Your task to perform on an android device: open app "Spotify: Music and Podcasts" (install if not already installed) Image 0: 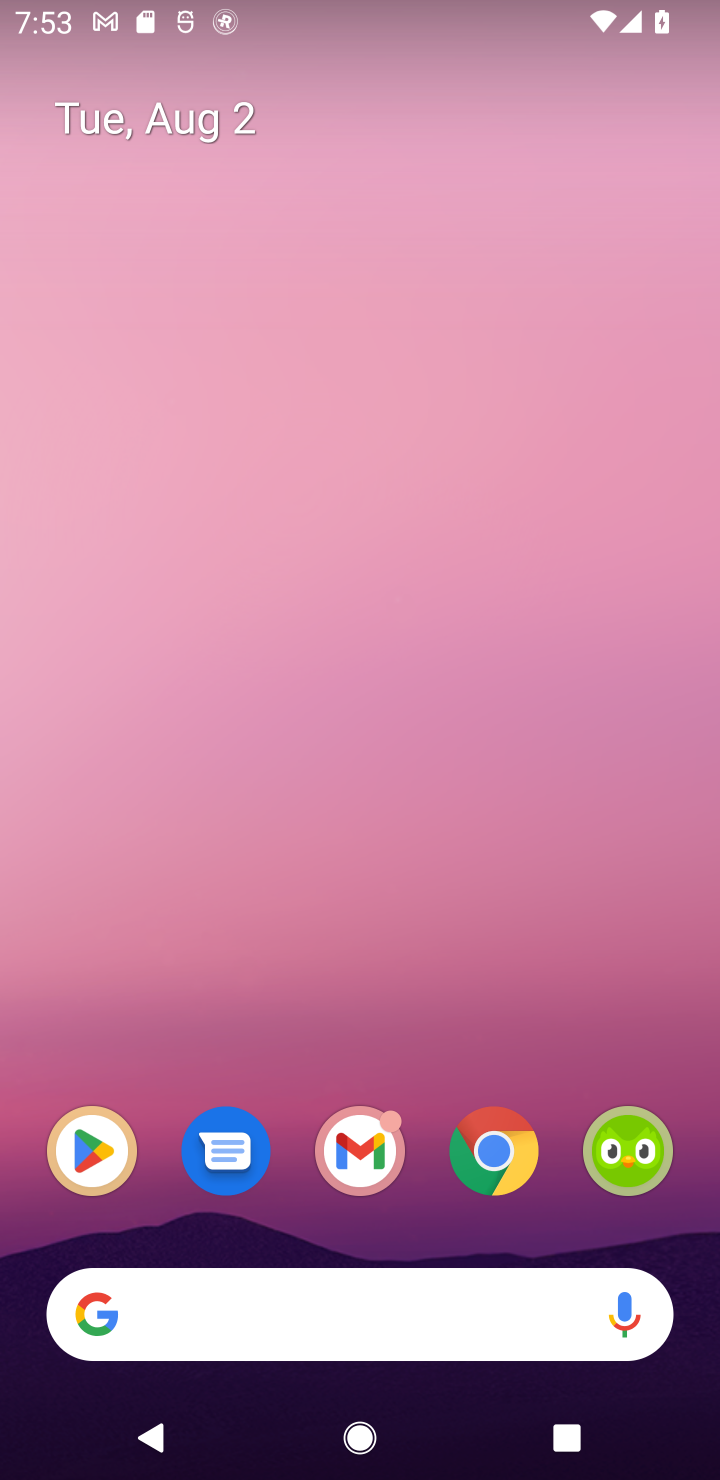
Step 0: click (119, 1165)
Your task to perform on an android device: open app "Spotify: Music and Podcasts" (install if not already installed) Image 1: 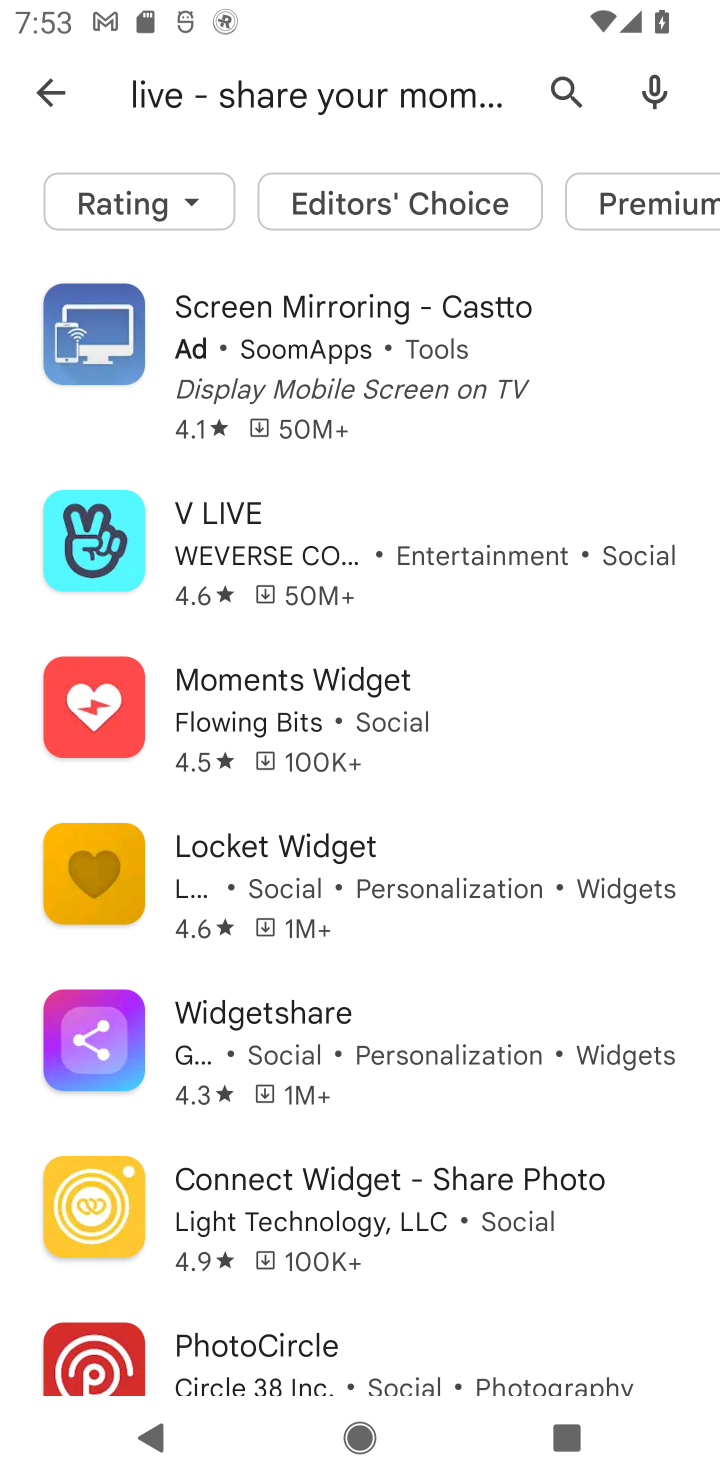
Step 1: click (567, 85)
Your task to perform on an android device: open app "Spotify: Music and Podcasts" (install if not already installed) Image 2: 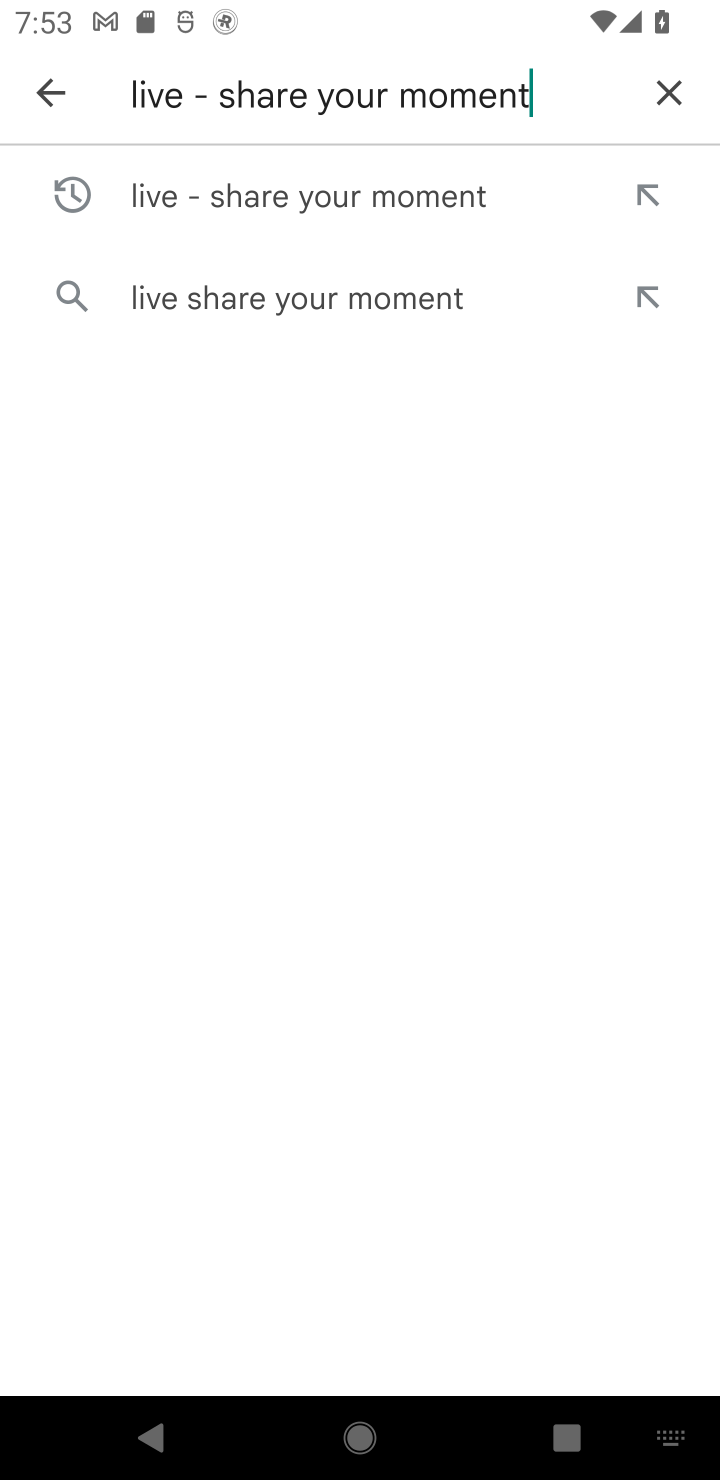
Step 2: click (649, 97)
Your task to perform on an android device: open app "Spotify: Music and Podcasts" (install if not already installed) Image 3: 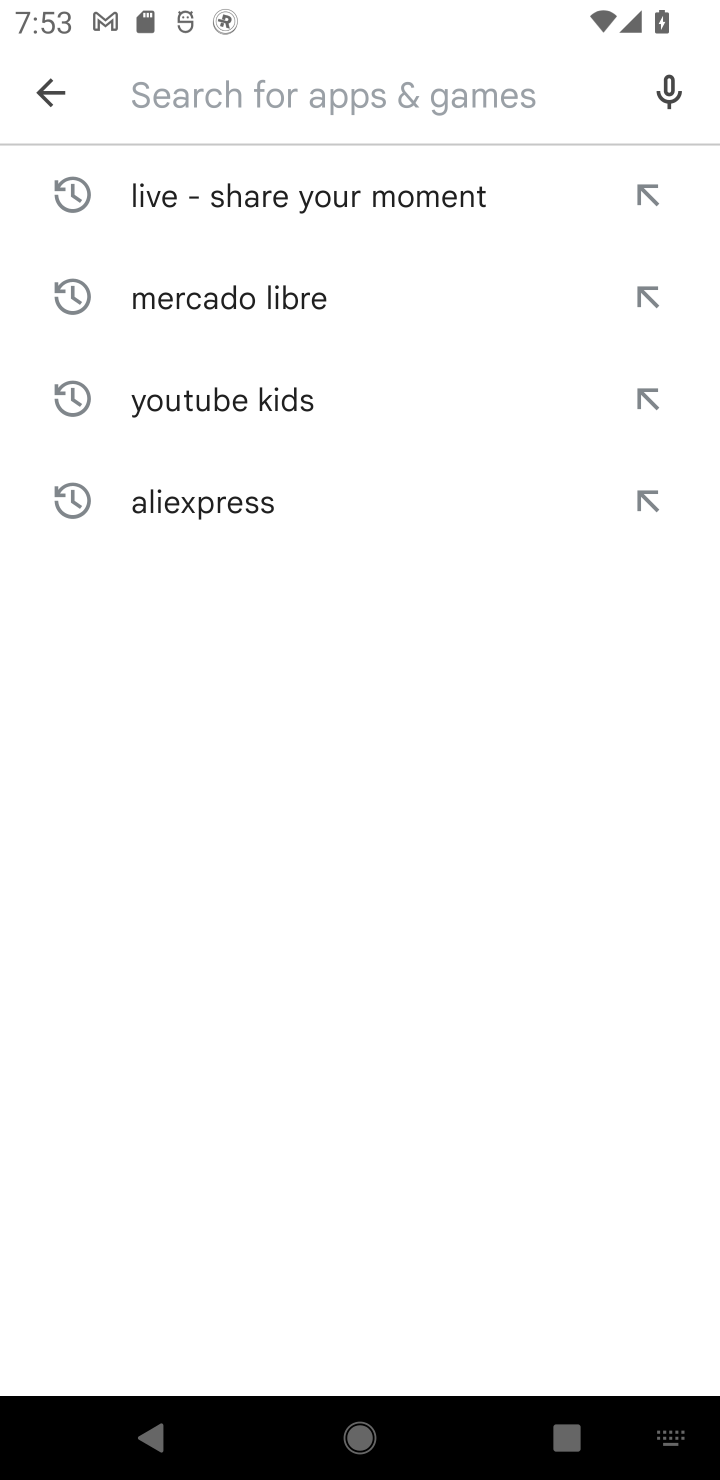
Step 3: type "Spotify: Music and Podcasts"
Your task to perform on an android device: open app "Spotify: Music and Podcasts" (install if not already installed) Image 4: 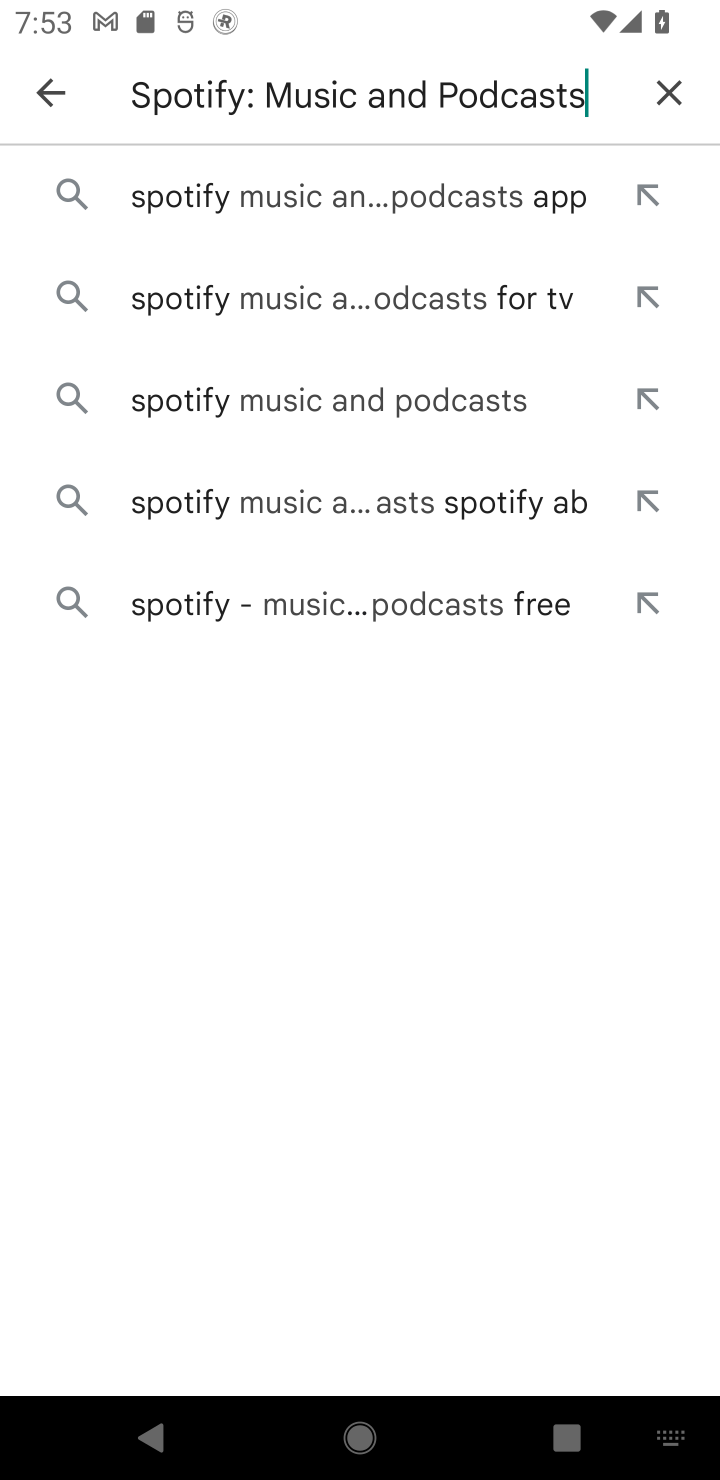
Step 4: click (266, 194)
Your task to perform on an android device: open app "Spotify: Music and Podcasts" (install if not already installed) Image 5: 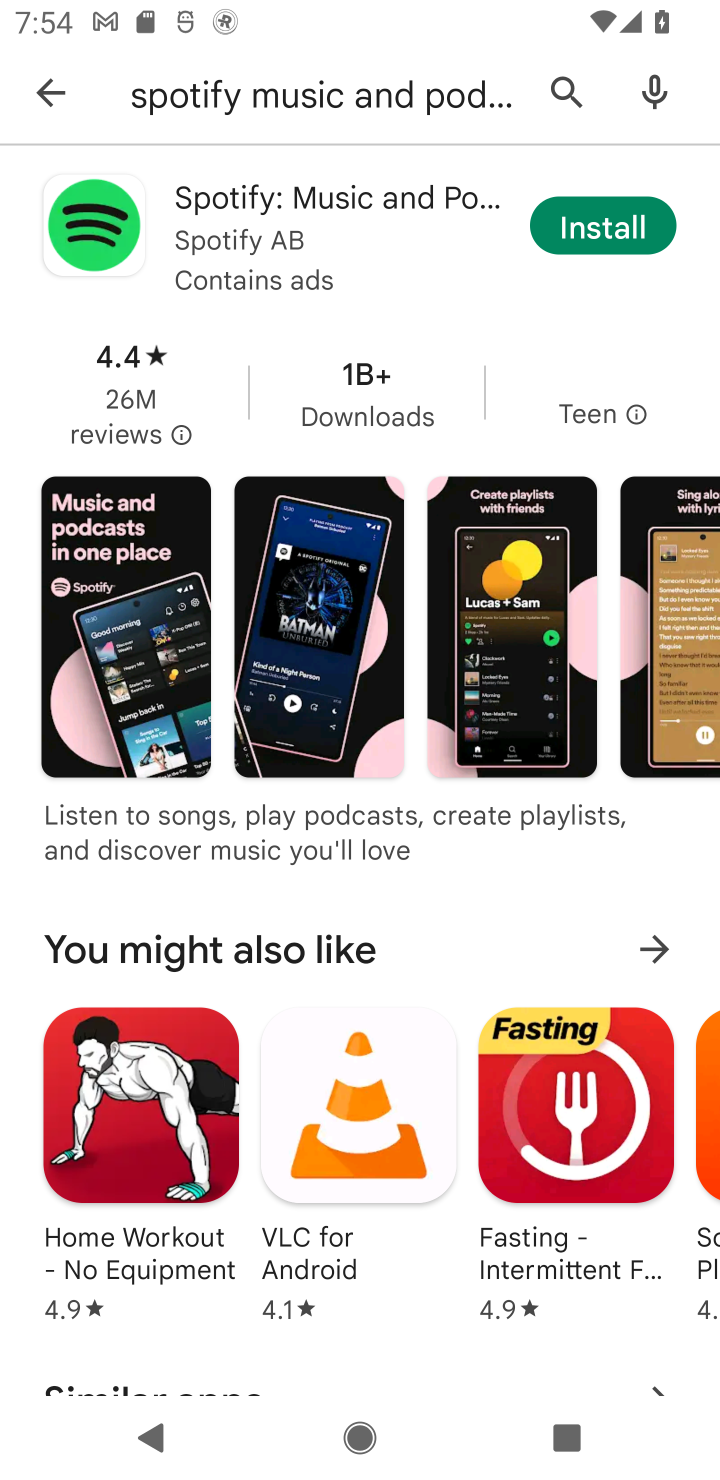
Step 5: click (599, 236)
Your task to perform on an android device: open app "Spotify: Music and Podcasts" (install if not already installed) Image 6: 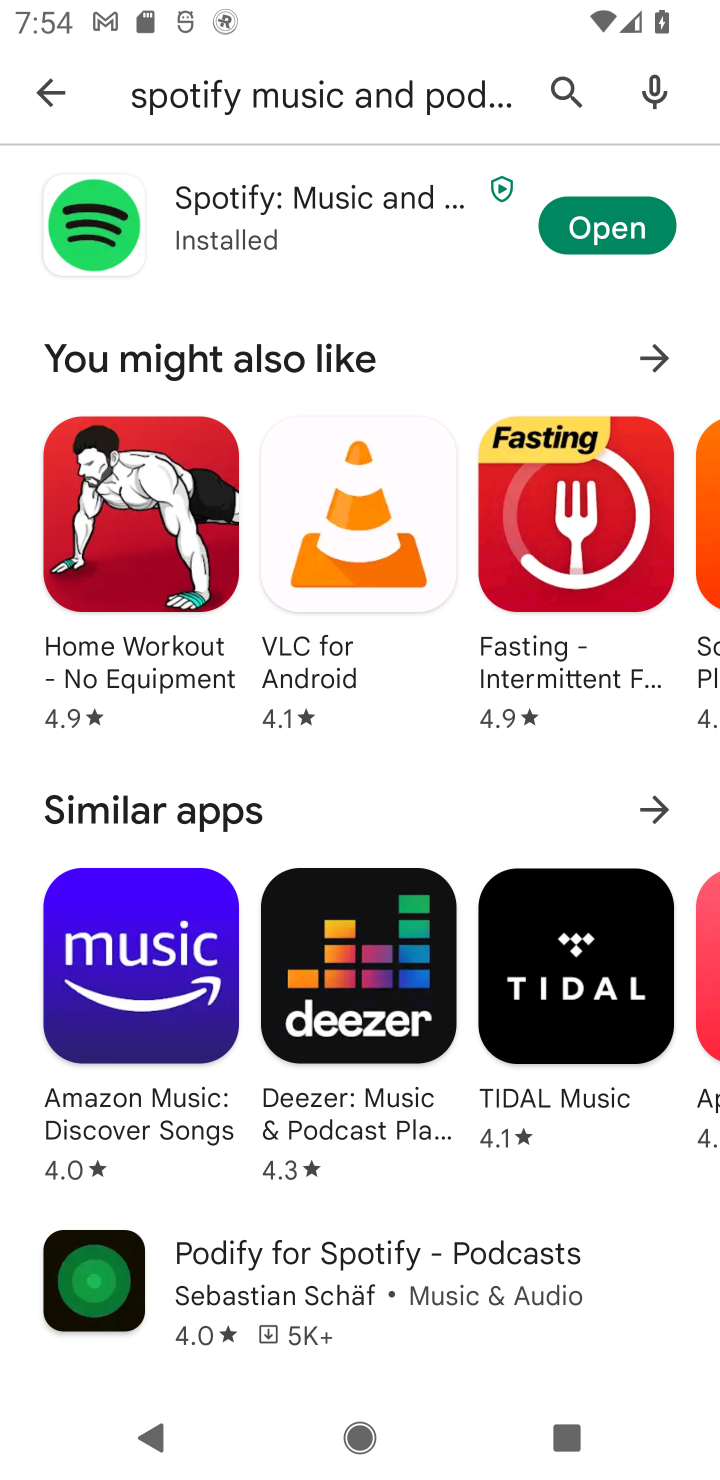
Step 6: click (593, 216)
Your task to perform on an android device: open app "Spotify: Music and Podcasts" (install if not already installed) Image 7: 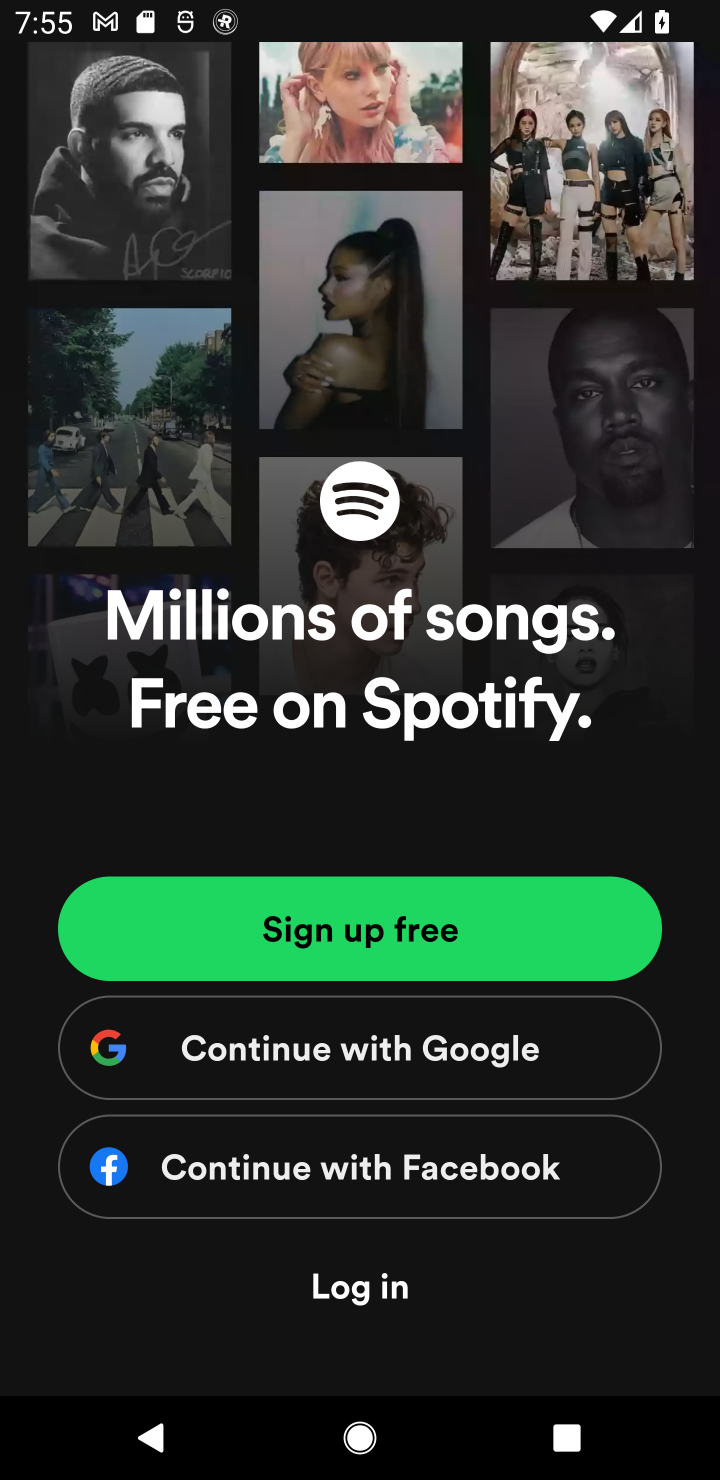
Step 7: task complete